Your task to perform on an android device: set default search engine in the chrome app Image 0: 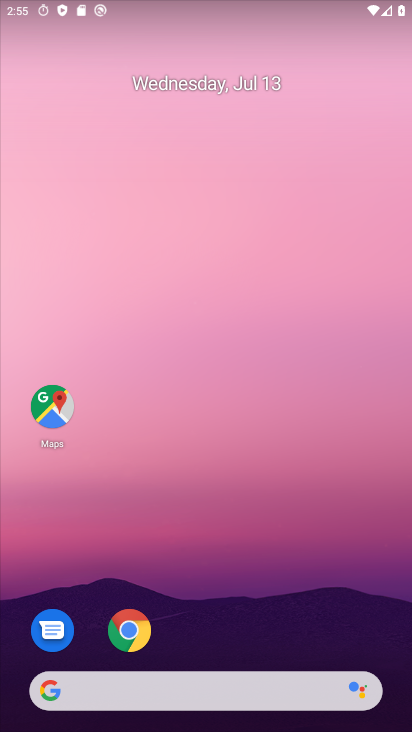
Step 0: click (131, 637)
Your task to perform on an android device: set default search engine in the chrome app Image 1: 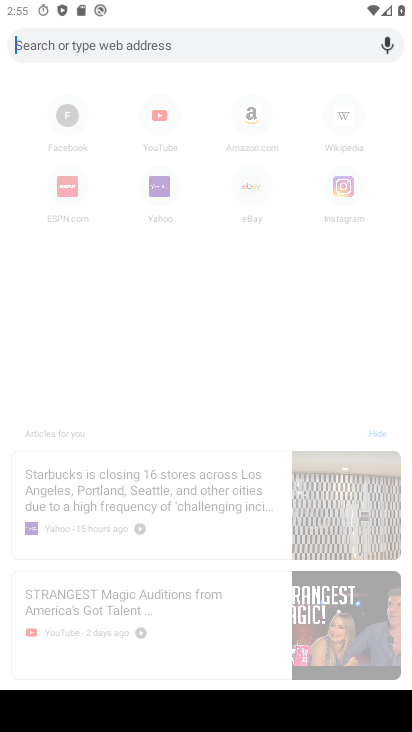
Step 1: click (193, 249)
Your task to perform on an android device: set default search engine in the chrome app Image 2: 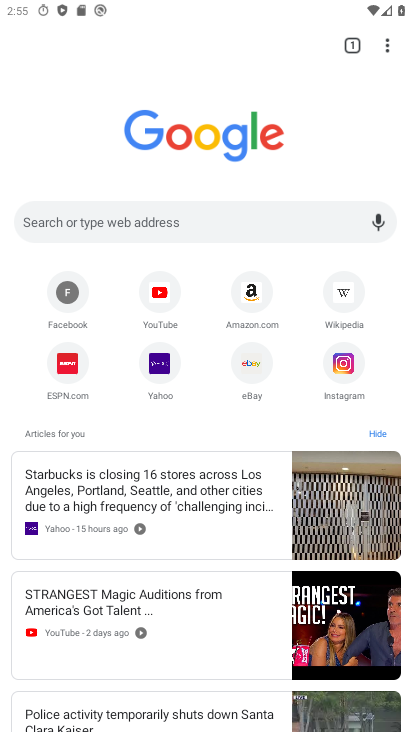
Step 2: click (389, 48)
Your task to perform on an android device: set default search engine in the chrome app Image 3: 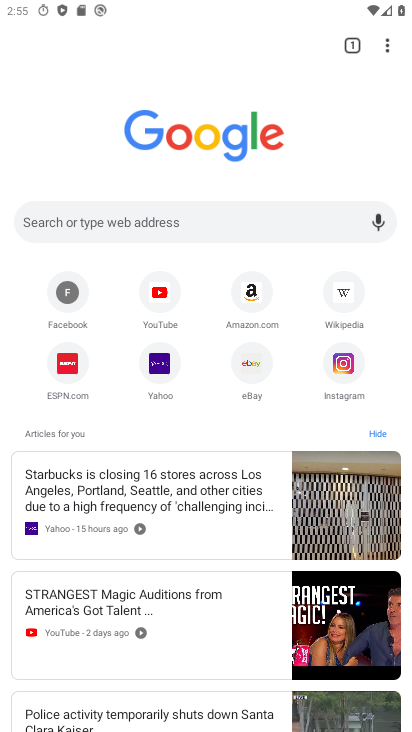
Step 3: click (383, 39)
Your task to perform on an android device: set default search engine in the chrome app Image 4: 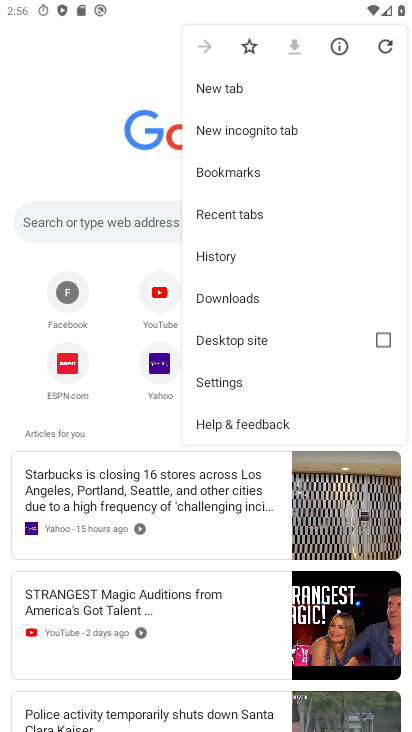
Step 4: click (218, 383)
Your task to perform on an android device: set default search engine in the chrome app Image 5: 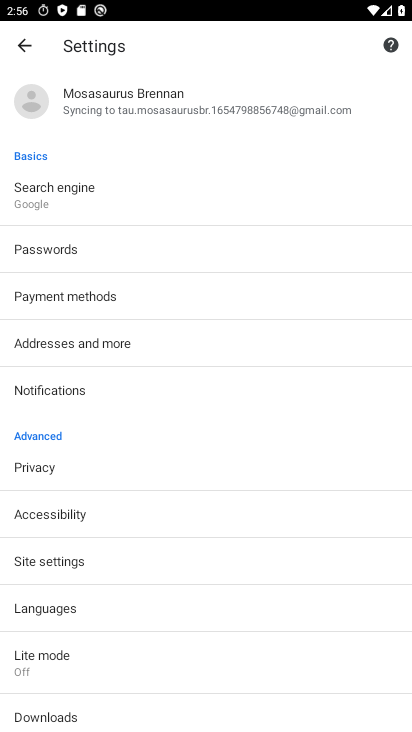
Step 5: click (92, 199)
Your task to perform on an android device: set default search engine in the chrome app Image 6: 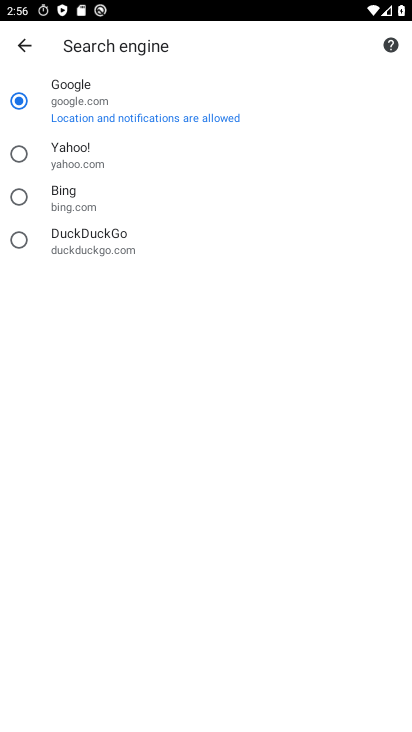
Step 6: task complete